Your task to perform on an android device: turn on priority inbox in the gmail app Image 0: 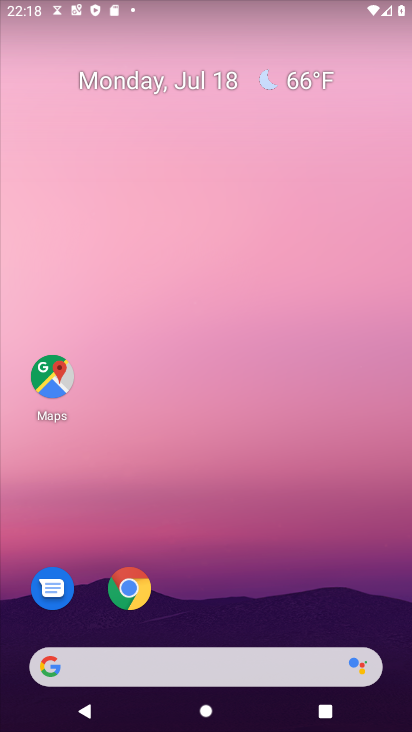
Step 0: press home button
Your task to perform on an android device: turn on priority inbox in the gmail app Image 1: 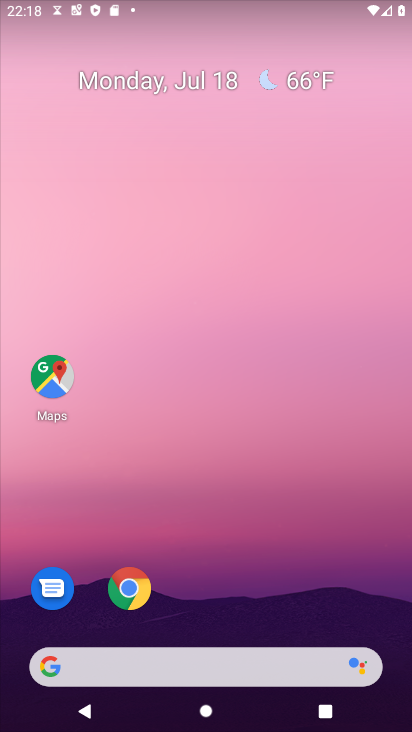
Step 1: drag from (166, 660) to (337, 145)
Your task to perform on an android device: turn on priority inbox in the gmail app Image 2: 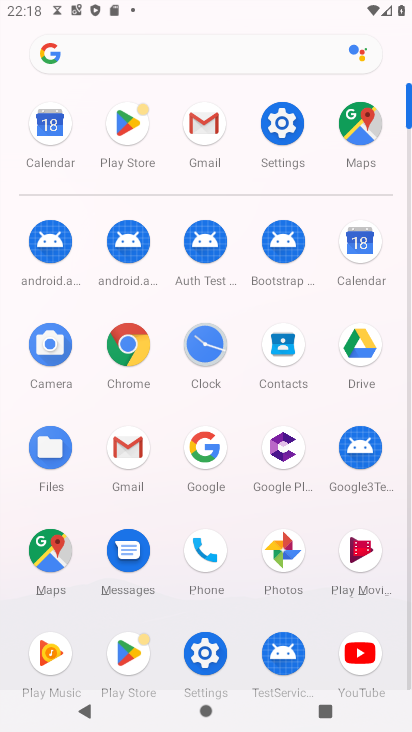
Step 2: click (206, 131)
Your task to perform on an android device: turn on priority inbox in the gmail app Image 3: 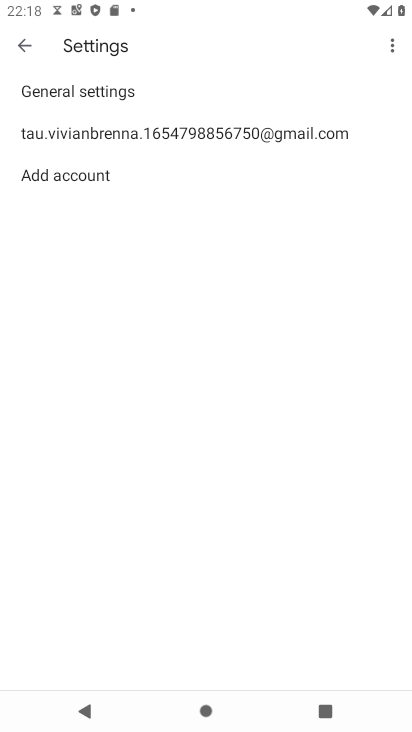
Step 3: click (247, 125)
Your task to perform on an android device: turn on priority inbox in the gmail app Image 4: 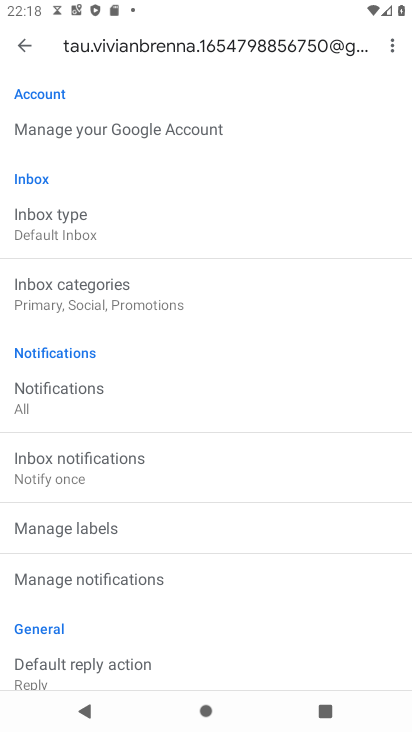
Step 4: click (76, 238)
Your task to perform on an android device: turn on priority inbox in the gmail app Image 5: 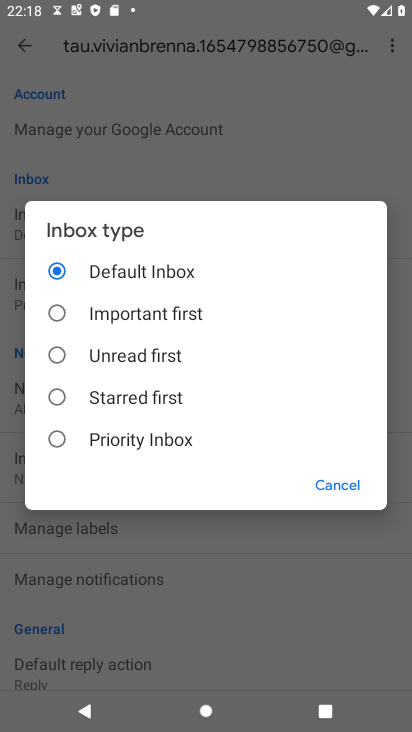
Step 5: click (58, 436)
Your task to perform on an android device: turn on priority inbox in the gmail app Image 6: 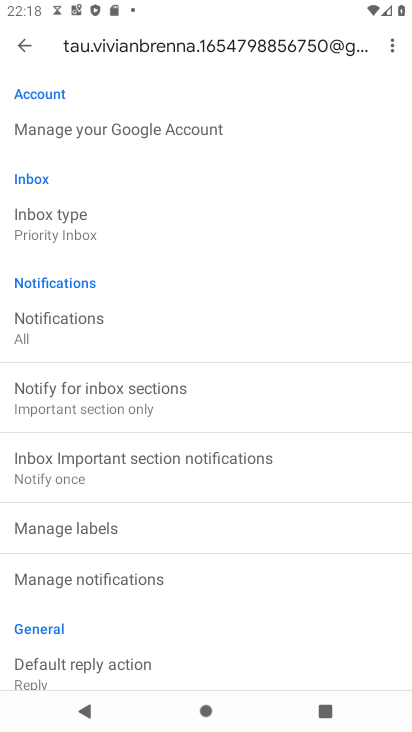
Step 6: task complete